Your task to perform on an android device: clear history in the chrome app Image 0: 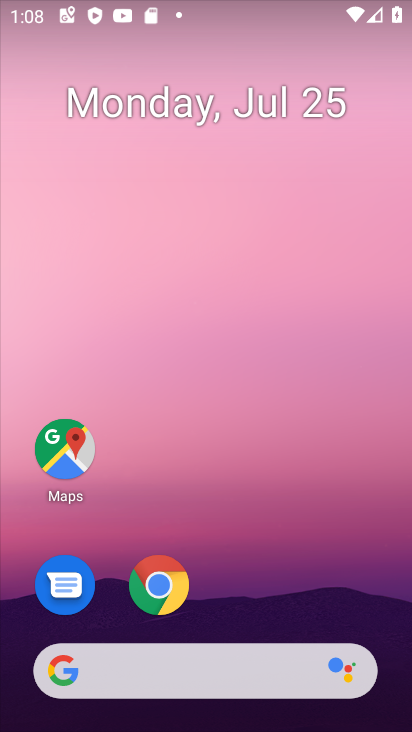
Step 0: click (162, 582)
Your task to perform on an android device: clear history in the chrome app Image 1: 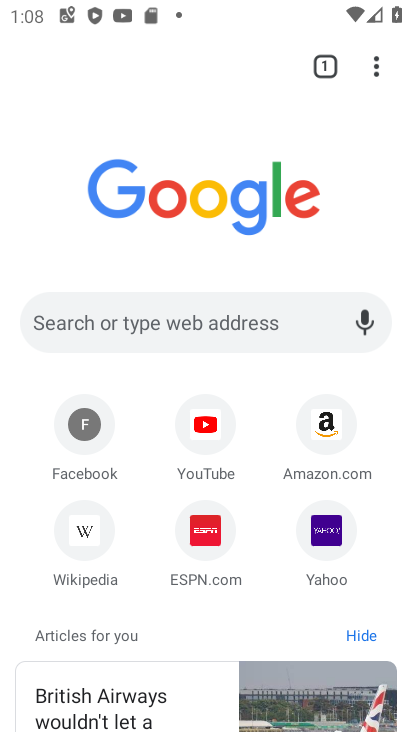
Step 1: click (374, 67)
Your task to perform on an android device: clear history in the chrome app Image 2: 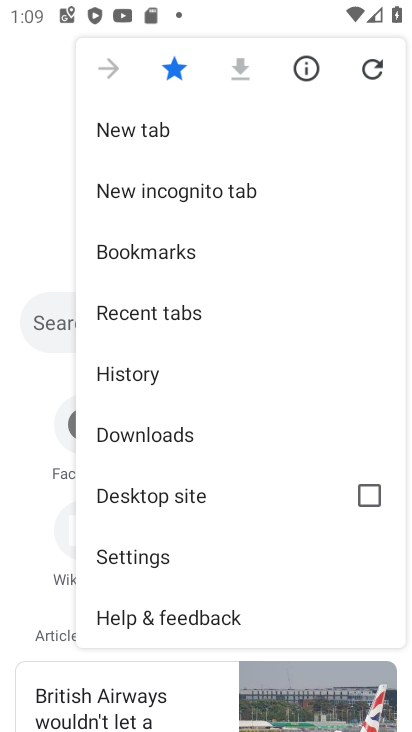
Step 2: click (153, 372)
Your task to perform on an android device: clear history in the chrome app Image 3: 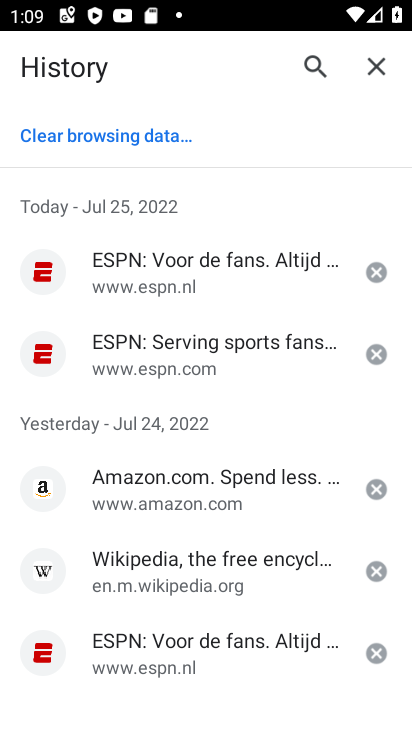
Step 3: click (123, 136)
Your task to perform on an android device: clear history in the chrome app Image 4: 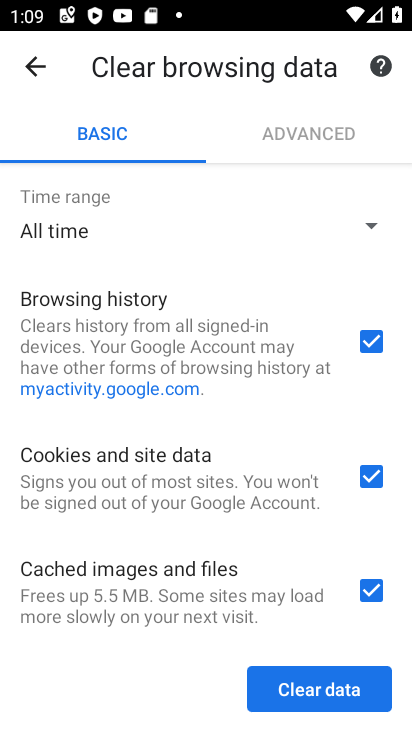
Step 4: click (331, 679)
Your task to perform on an android device: clear history in the chrome app Image 5: 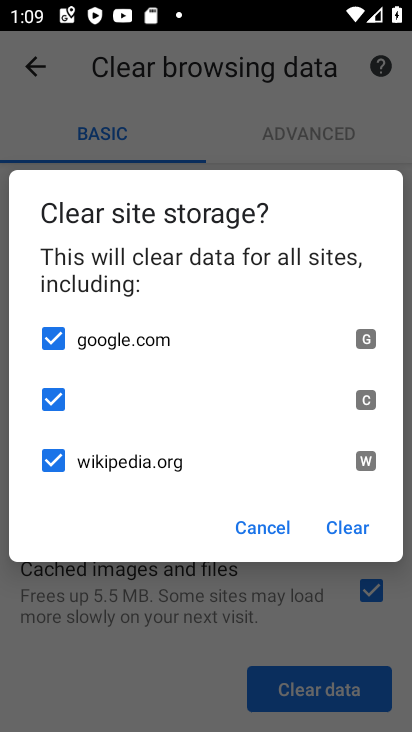
Step 5: click (353, 526)
Your task to perform on an android device: clear history in the chrome app Image 6: 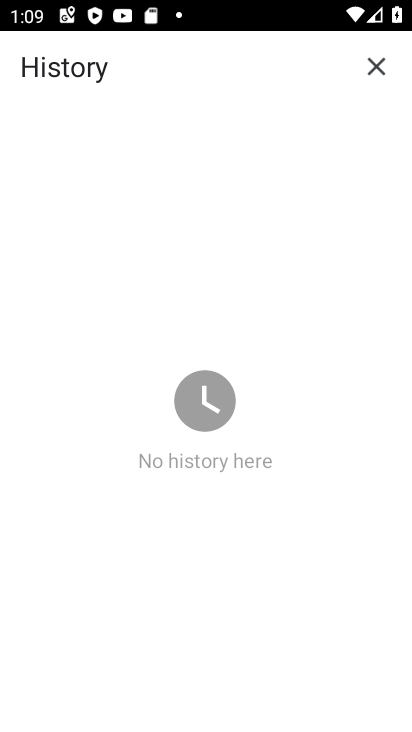
Step 6: task complete